Your task to perform on an android device: Add energizer triple a to the cart on walmart Image 0: 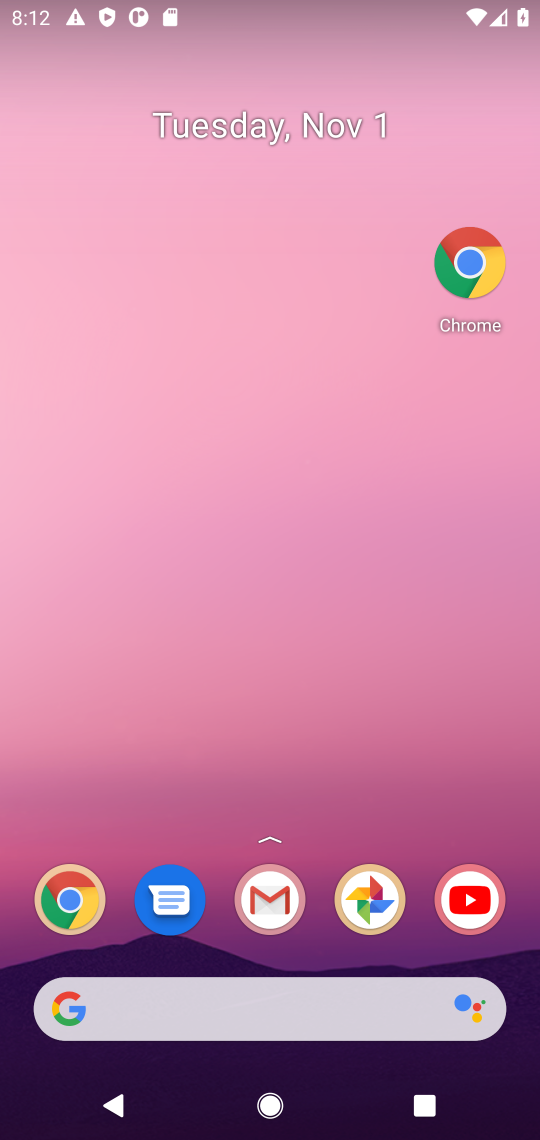
Step 0: drag from (317, 925) to (275, 379)
Your task to perform on an android device: Add energizer triple a to the cart on walmart Image 1: 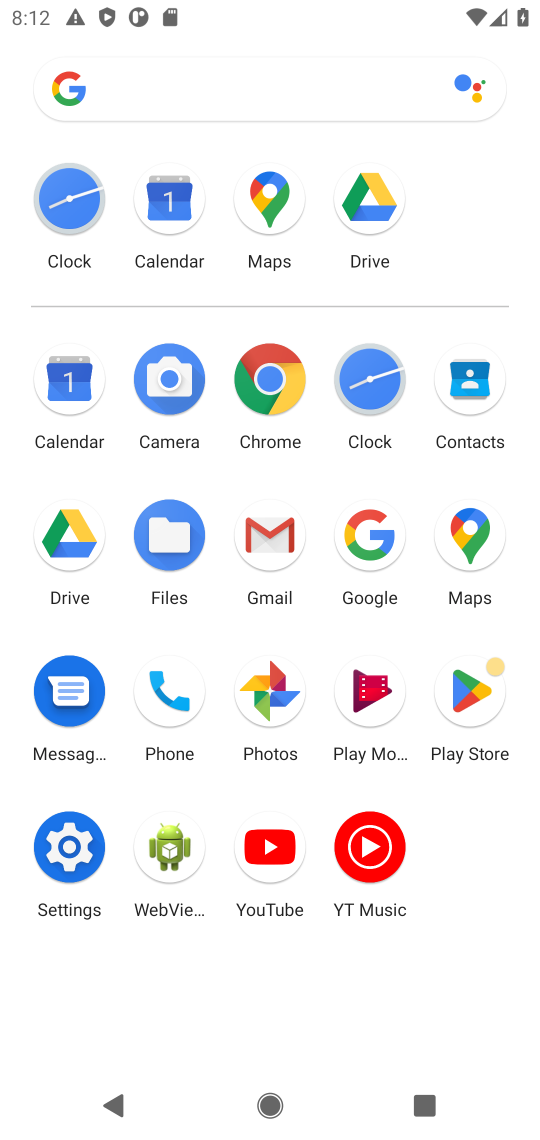
Step 1: click (270, 380)
Your task to perform on an android device: Add energizer triple a to the cart on walmart Image 2: 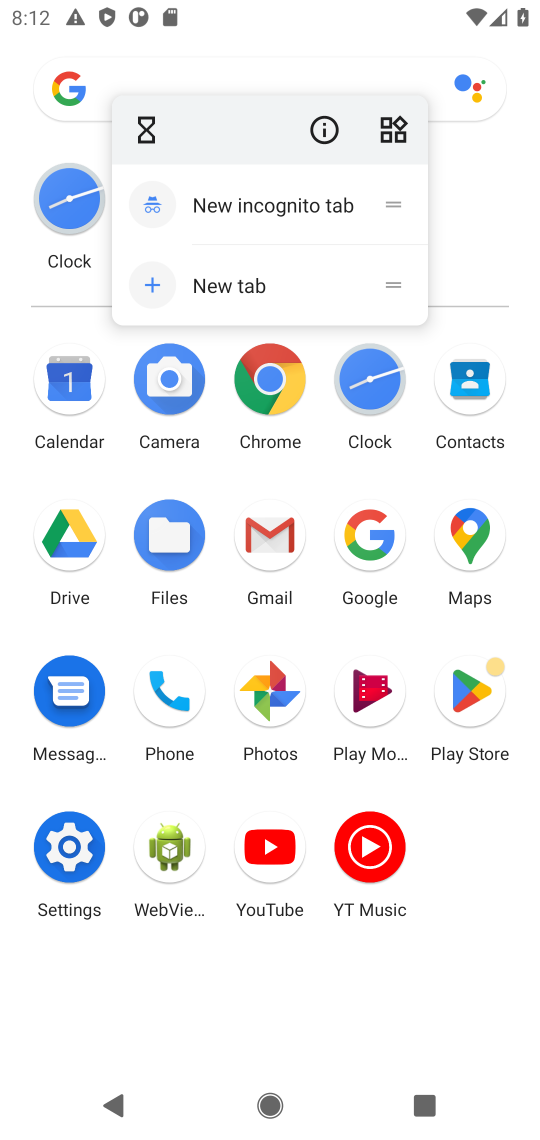
Step 2: click (277, 379)
Your task to perform on an android device: Add energizer triple a to the cart on walmart Image 3: 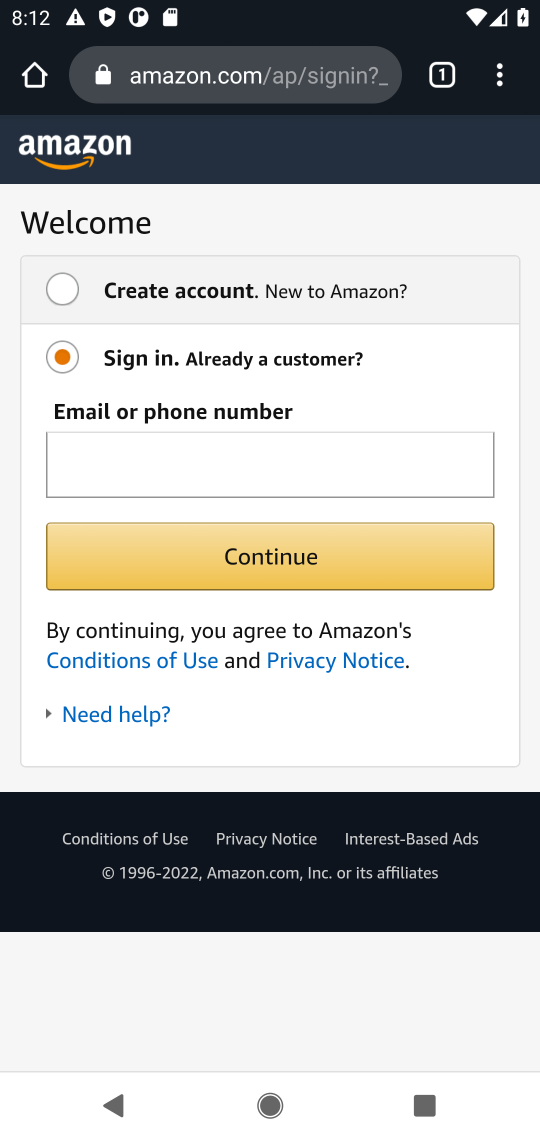
Step 3: click (266, 88)
Your task to perform on an android device: Add energizer triple a to the cart on walmart Image 4: 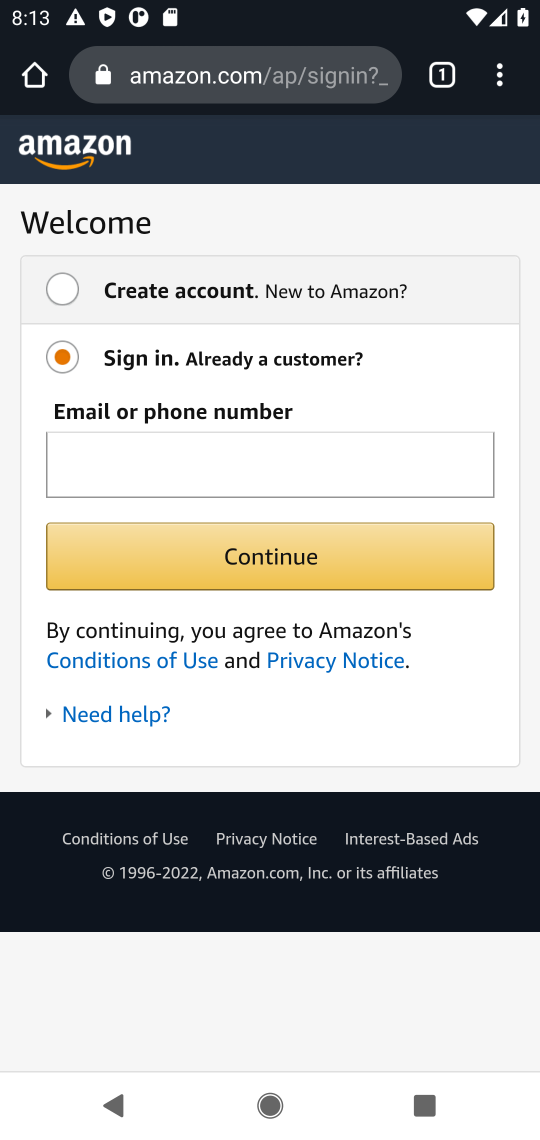
Step 4: click (227, 75)
Your task to perform on an android device: Add energizer triple a to the cart on walmart Image 5: 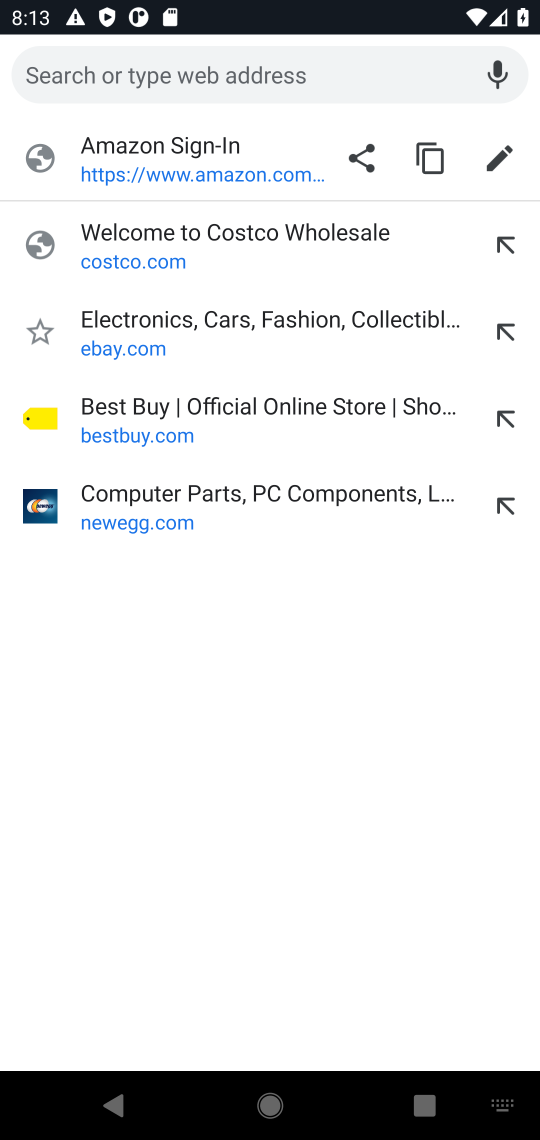
Step 5: type "walmart.com"
Your task to perform on an android device: Add energizer triple a to the cart on walmart Image 6: 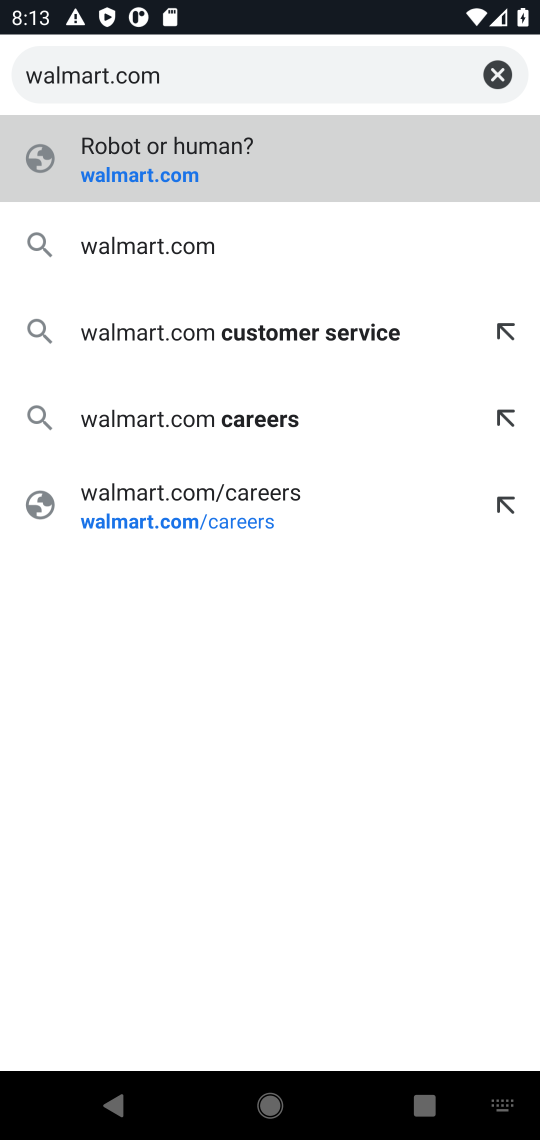
Step 6: press enter
Your task to perform on an android device: Add energizer triple a to the cart on walmart Image 7: 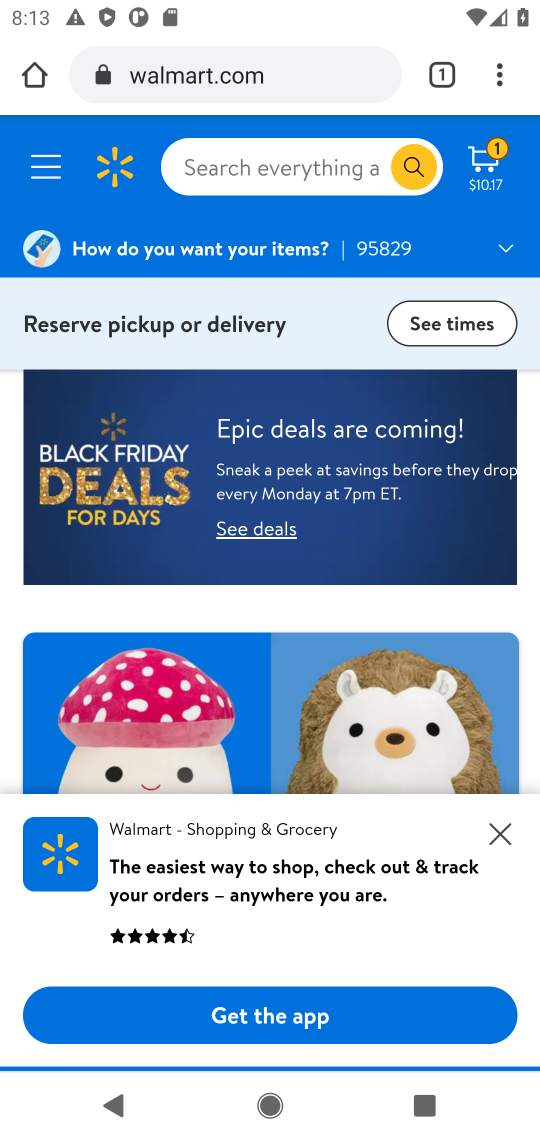
Step 7: click (290, 161)
Your task to perform on an android device: Add energizer triple a to the cart on walmart Image 8: 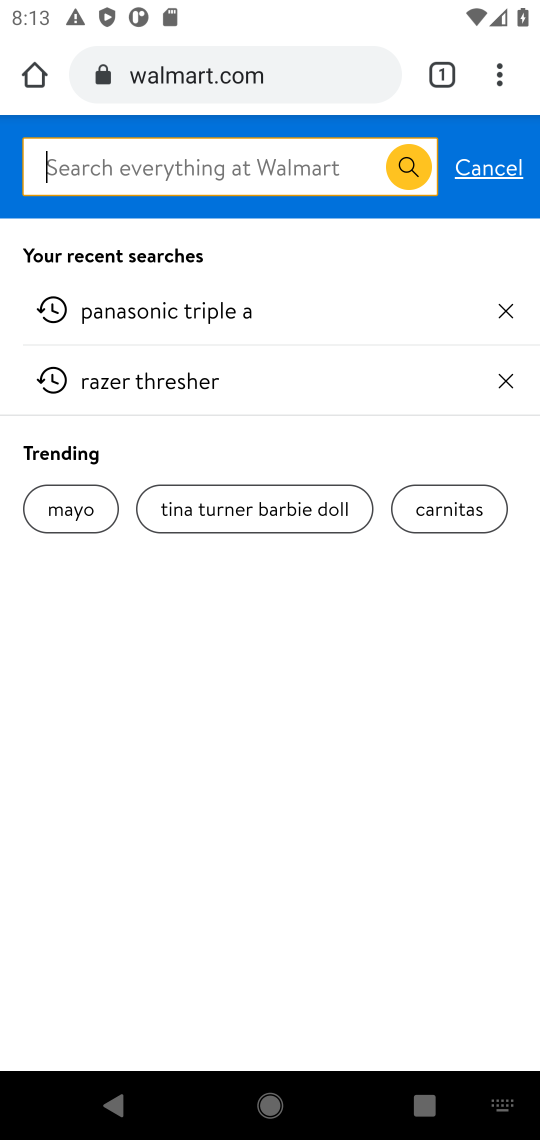
Step 8: type "energizer triple a"
Your task to perform on an android device: Add energizer triple a to the cart on walmart Image 9: 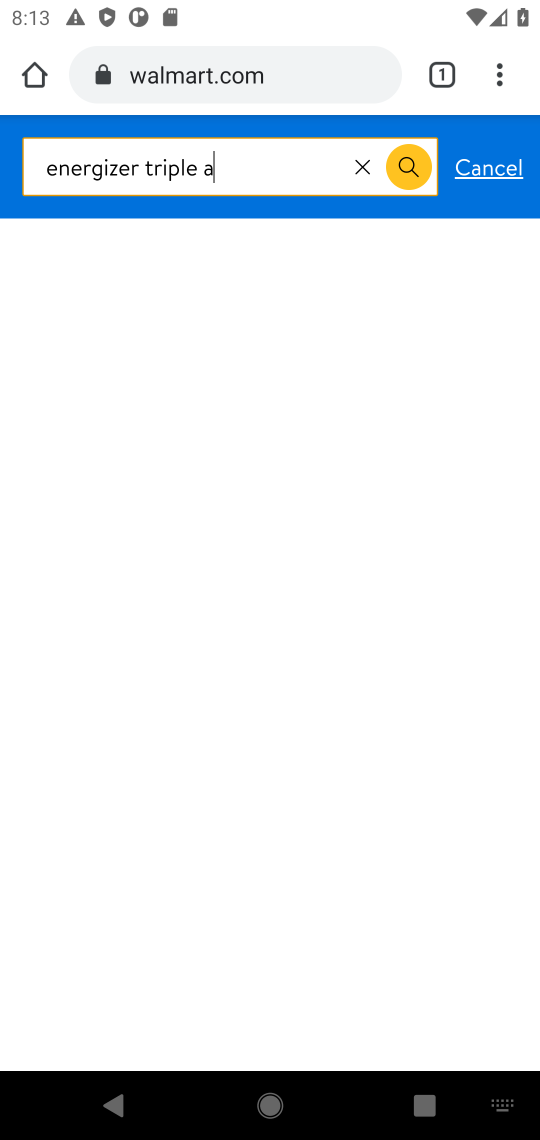
Step 9: press enter
Your task to perform on an android device: Add energizer triple a to the cart on walmart Image 10: 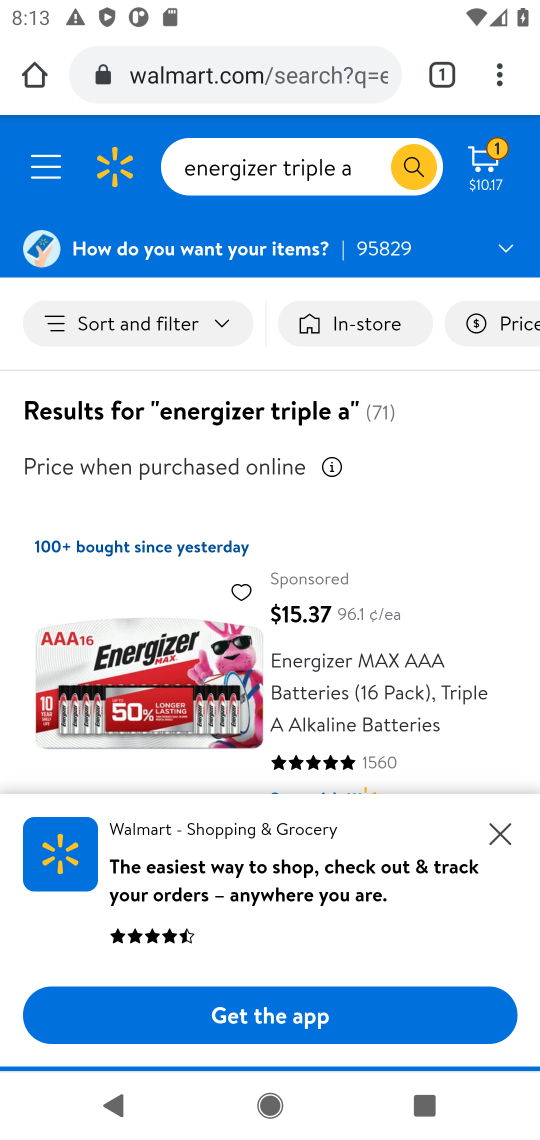
Step 10: click (192, 720)
Your task to perform on an android device: Add energizer triple a to the cart on walmart Image 11: 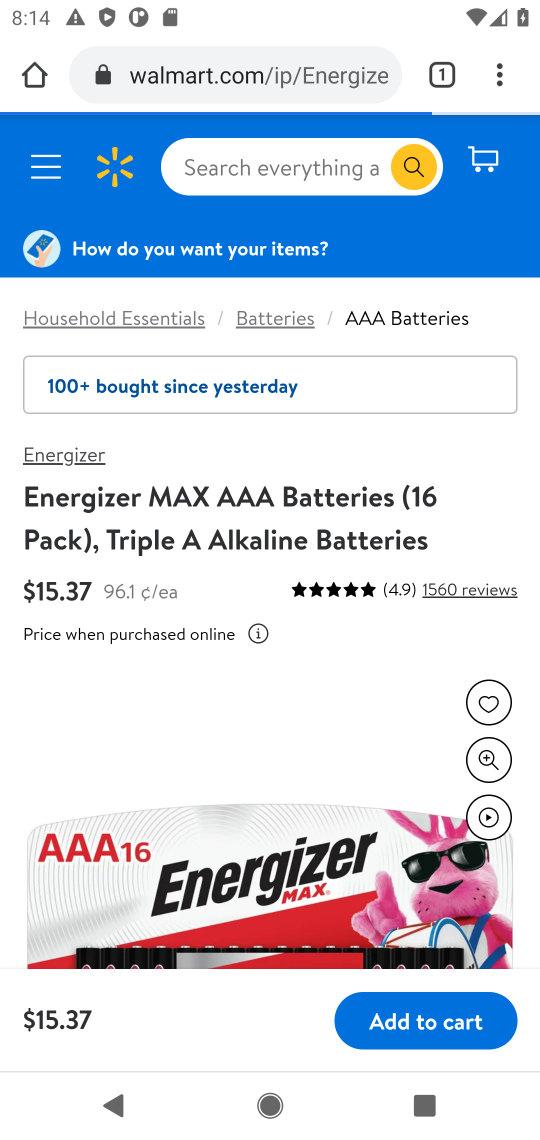
Step 11: drag from (192, 720) to (142, 27)
Your task to perform on an android device: Add energizer triple a to the cart on walmart Image 12: 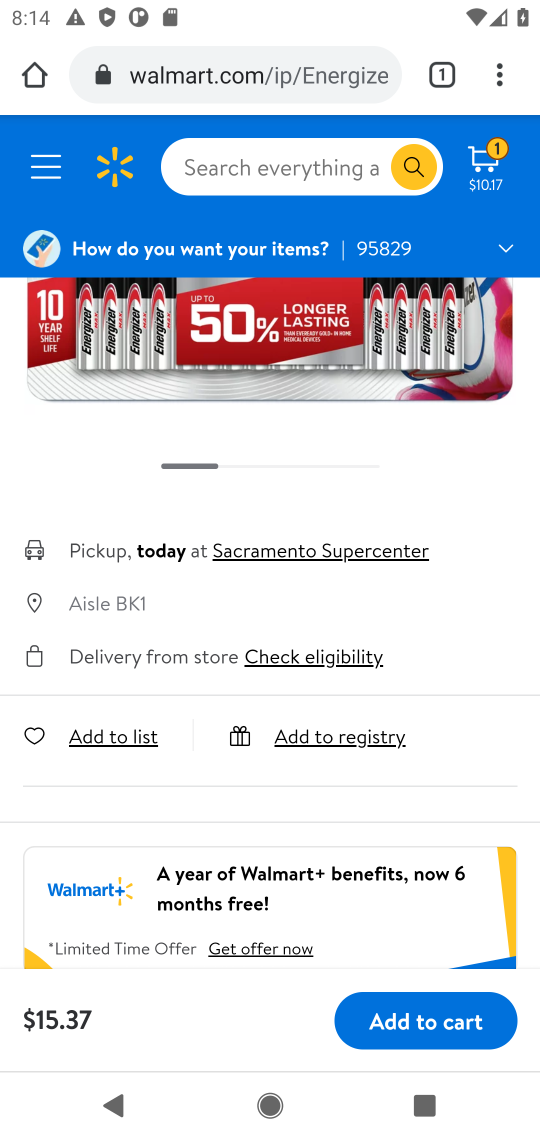
Step 12: drag from (281, 740) to (216, 214)
Your task to perform on an android device: Add energizer triple a to the cart on walmart Image 13: 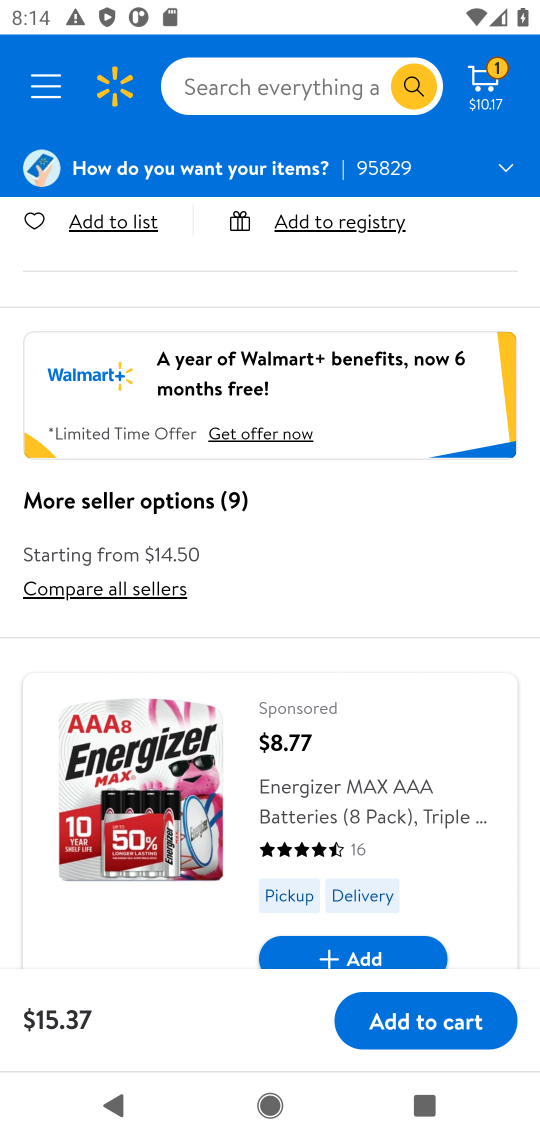
Step 13: click (439, 1026)
Your task to perform on an android device: Add energizer triple a to the cart on walmart Image 14: 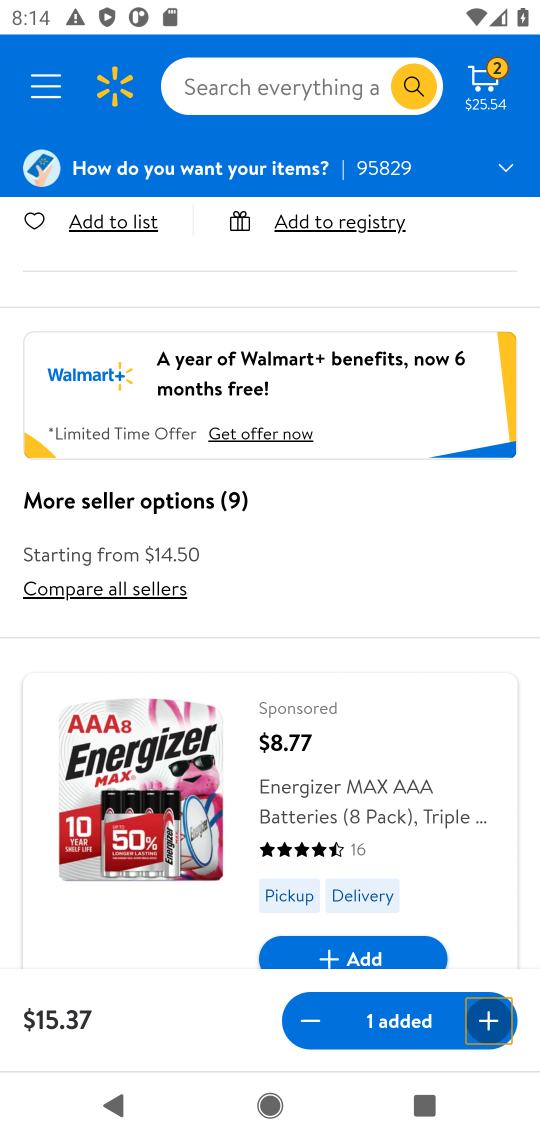
Step 14: task complete